Your task to perform on an android device: Open maps Image 0: 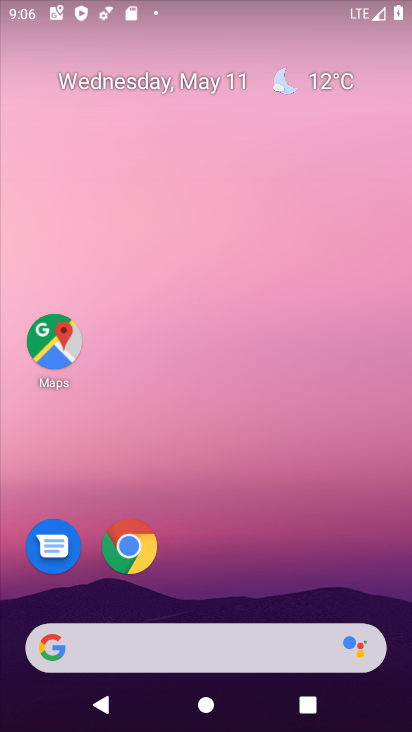
Step 0: click (53, 338)
Your task to perform on an android device: Open maps Image 1: 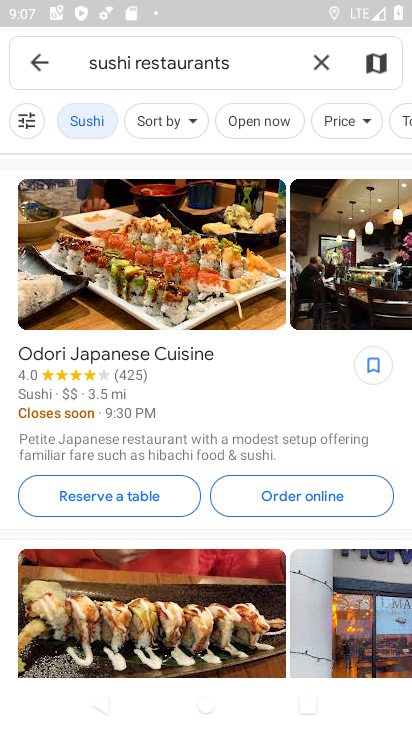
Step 1: click (319, 55)
Your task to perform on an android device: Open maps Image 2: 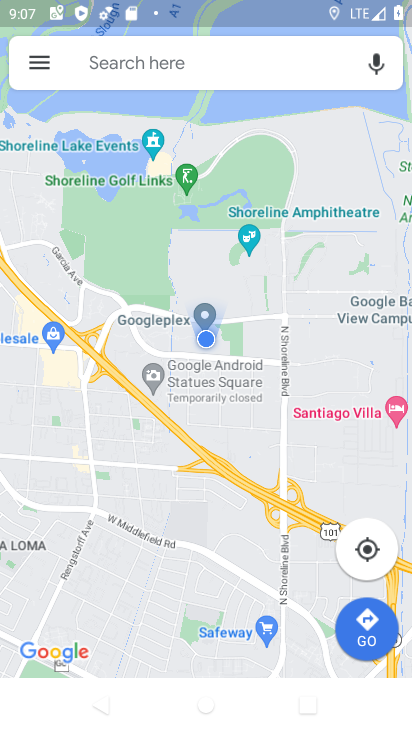
Step 2: task complete